Your task to perform on an android device: turn on showing notifications on the lock screen Image 0: 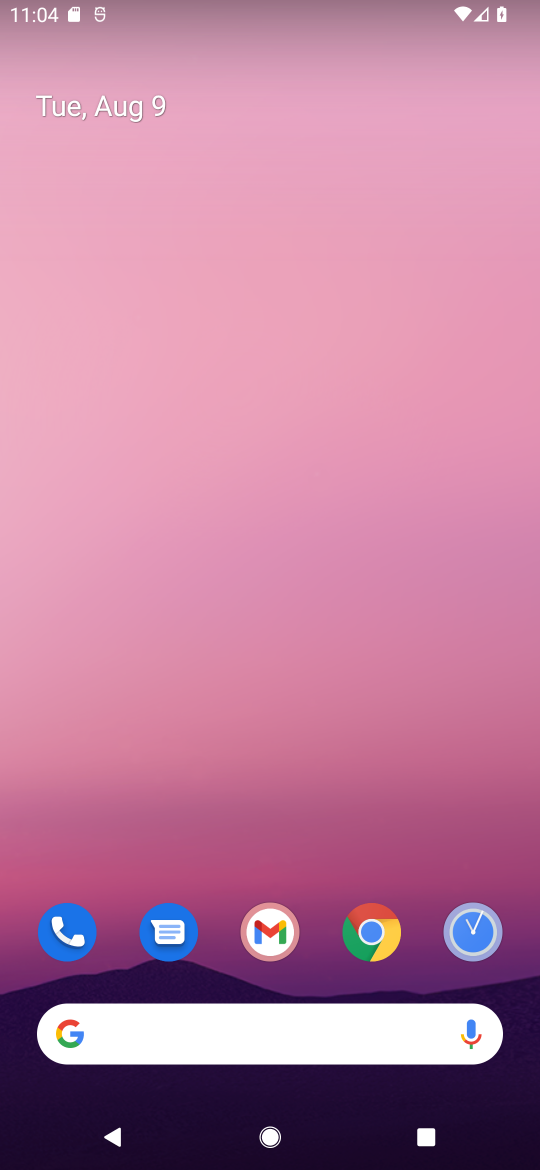
Step 0: drag from (231, 977) to (263, 2)
Your task to perform on an android device: turn on showing notifications on the lock screen Image 1: 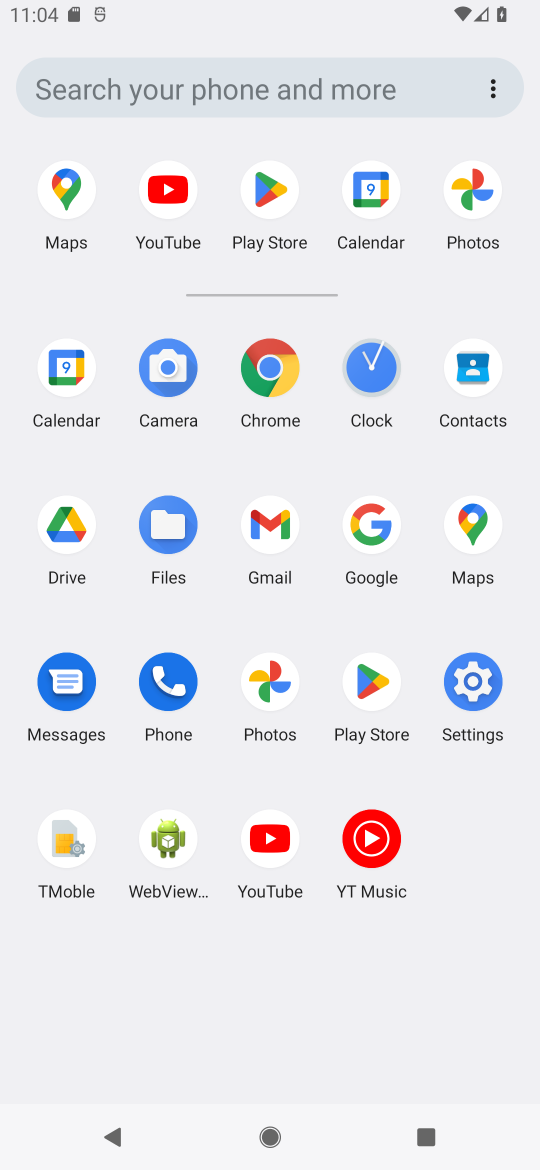
Step 1: click (479, 681)
Your task to perform on an android device: turn on showing notifications on the lock screen Image 2: 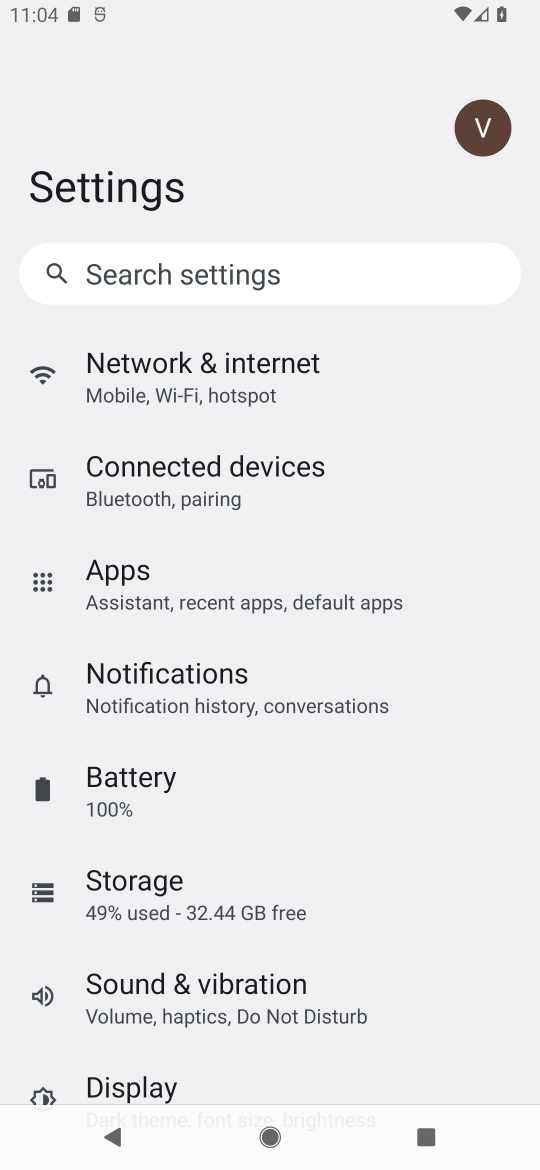
Step 2: click (225, 698)
Your task to perform on an android device: turn on showing notifications on the lock screen Image 3: 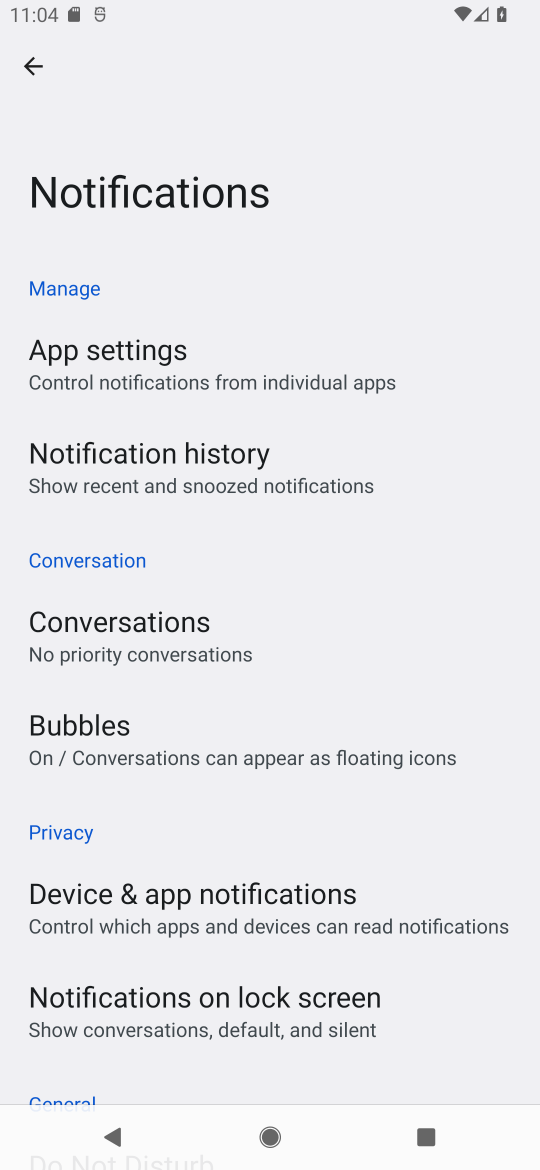
Step 3: drag from (199, 911) to (249, 408)
Your task to perform on an android device: turn on showing notifications on the lock screen Image 4: 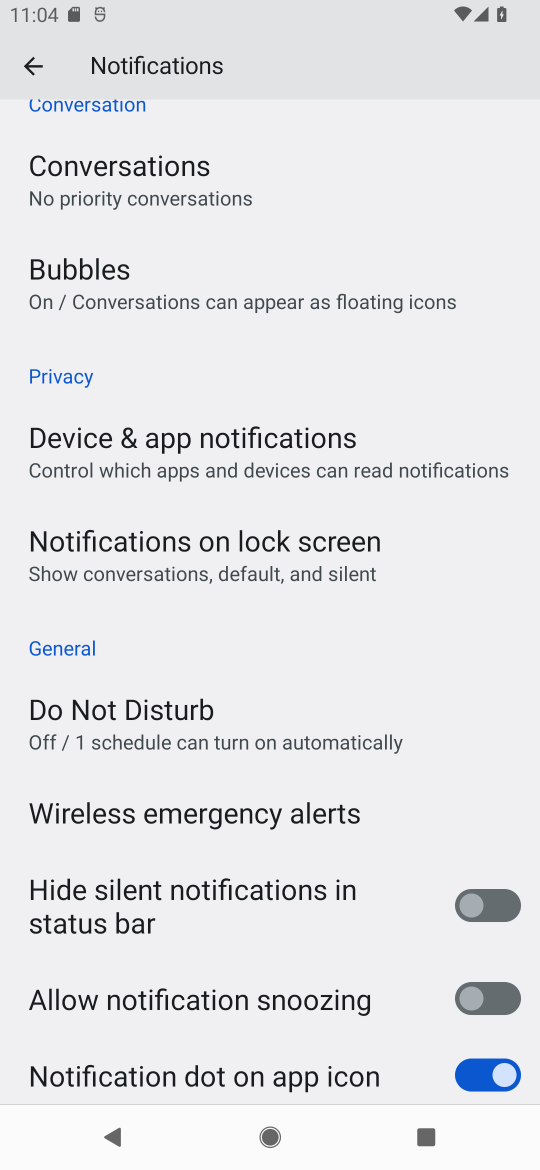
Step 4: drag from (484, 1010) to (506, 653)
Your task to perform on an android device: turn on showing notifications on the lock screen Image 5: 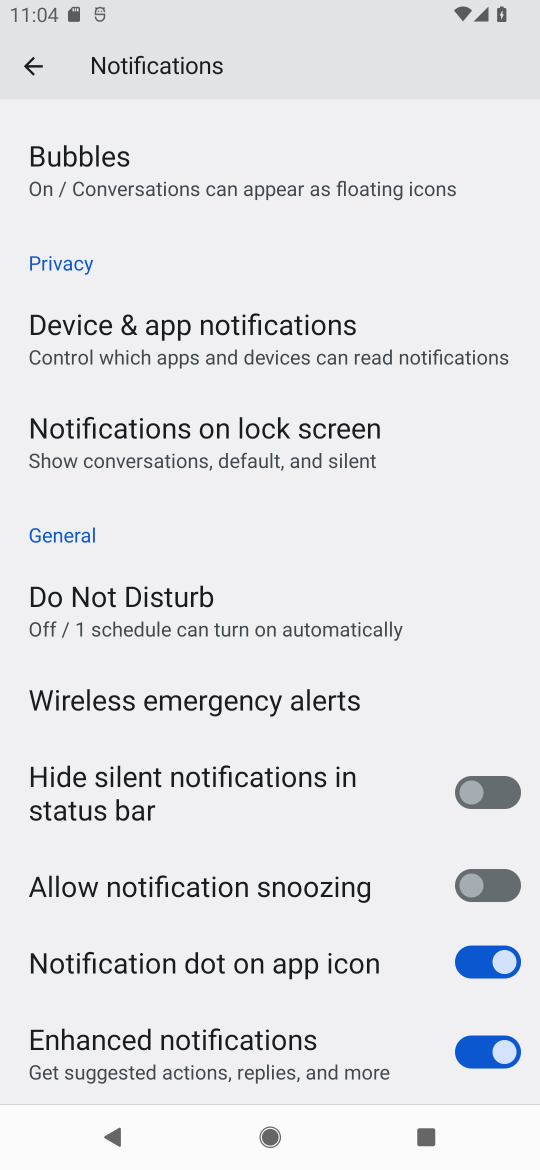
Step 5: click (198, 441)
Your task to perform on an android device: turn on showing notifications on the lock screen Image 6: 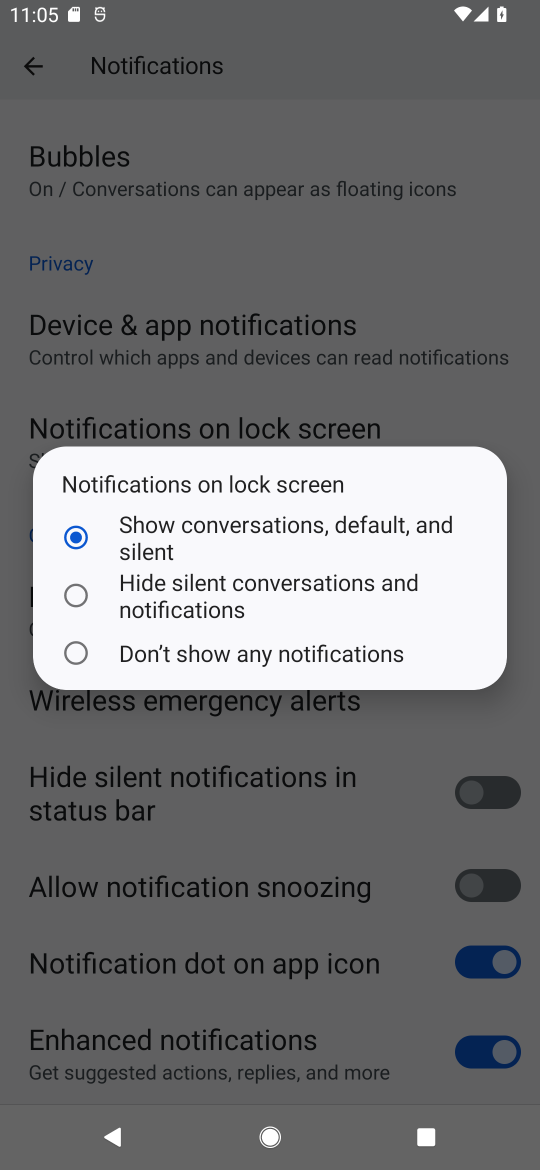
Step 6: task complete